Your task to perform on an android device: Look up the best rated pressure washer on Home Depot. Image 0: 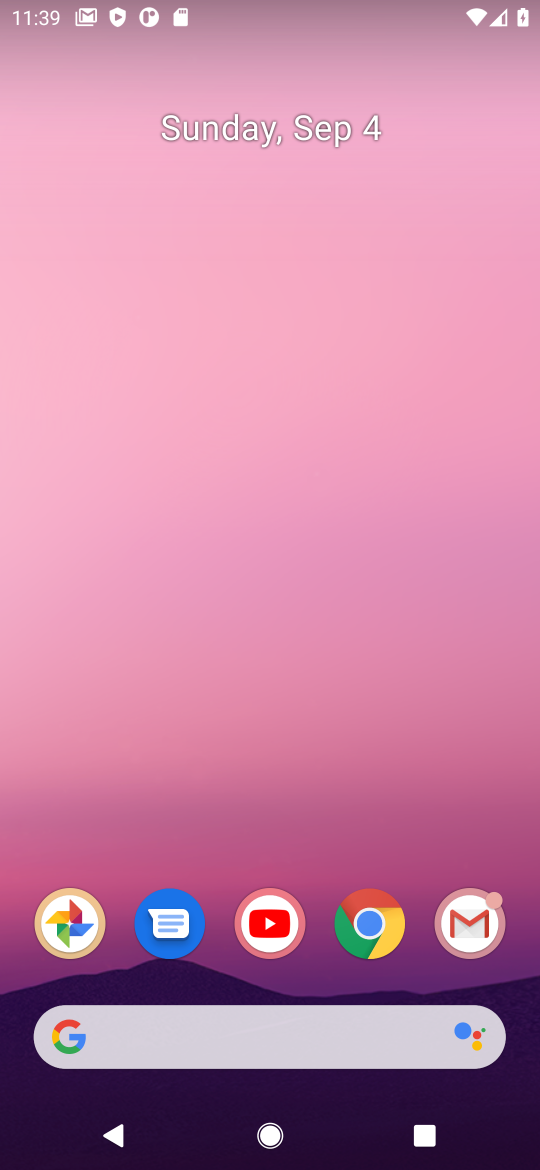
Step 0: click (362, 948)
Your task to perform on an android device: Look up the best rated pressure washer on Home Depot. Image 1: 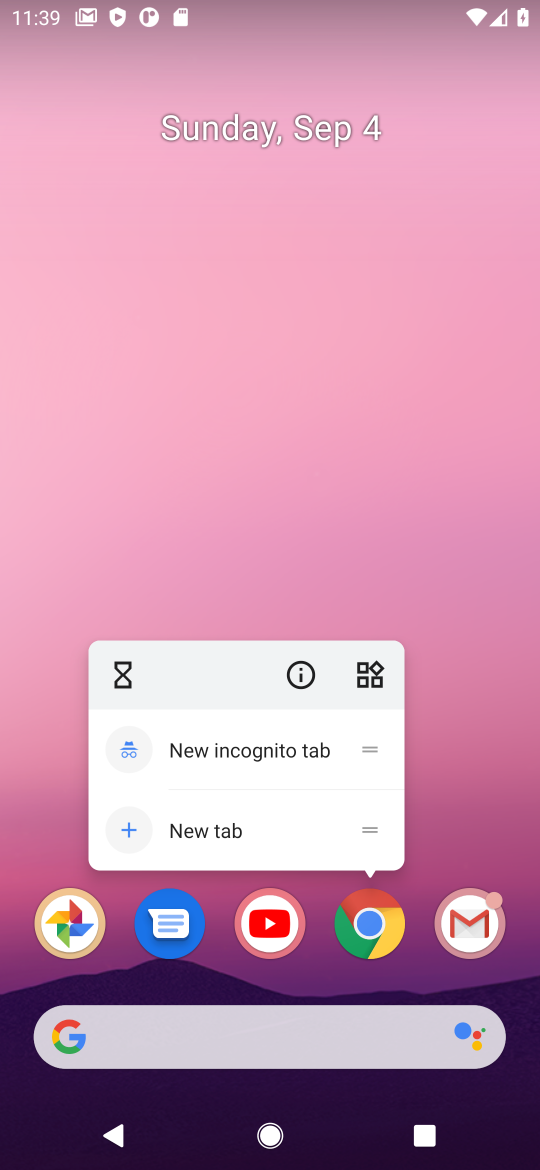
Step 1: click (369, 921)
Your task to perform on an android device: Look up the best rated pressure washer on Home Depot. Image 2: 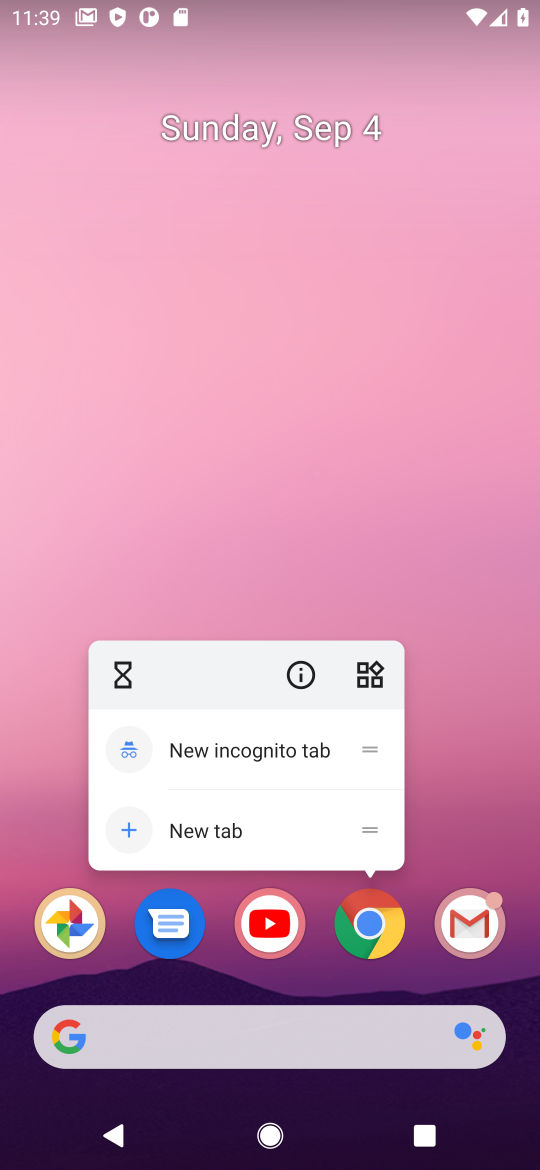
Step 2: click (369, 921)
Your task to perform on an android device: Look up the best rated pressure washer on Home Depot. Image 3: 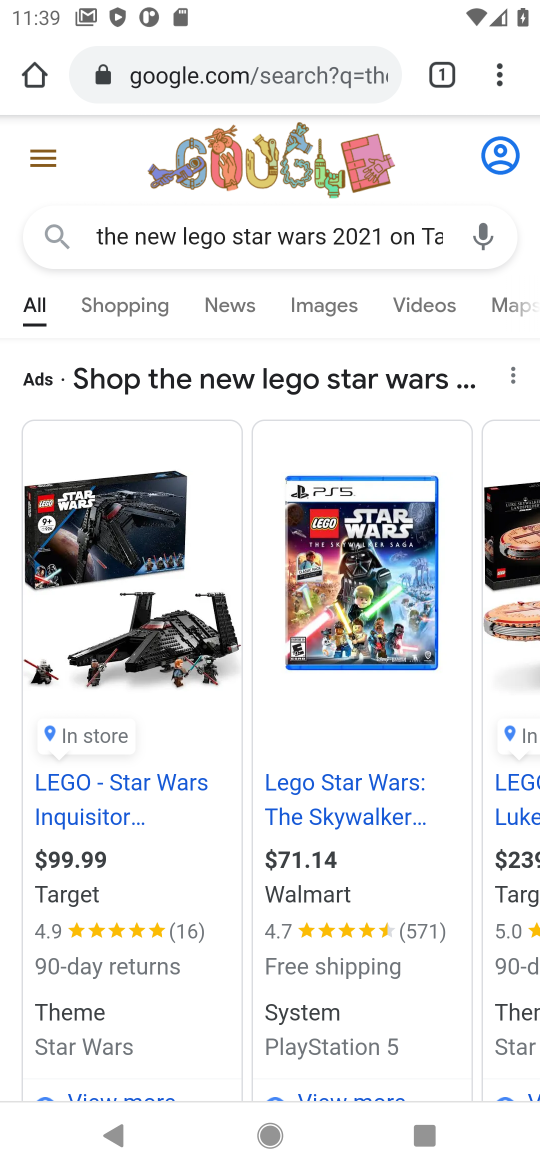
Step 3: click (321, 60)
Your task to perform on an android device: Look up the best rated pressure washer on Home Depot. Image 4: 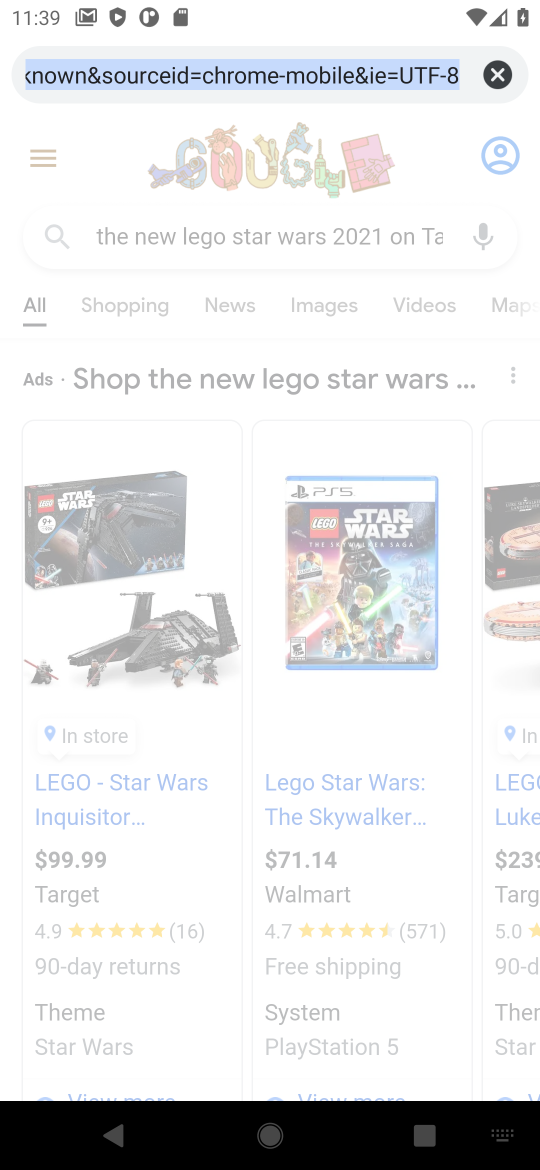
Step 4: click (489, 68)
Your task to perform on an android device: Look up the best rated pressure washer on Home Depot. Image 5: 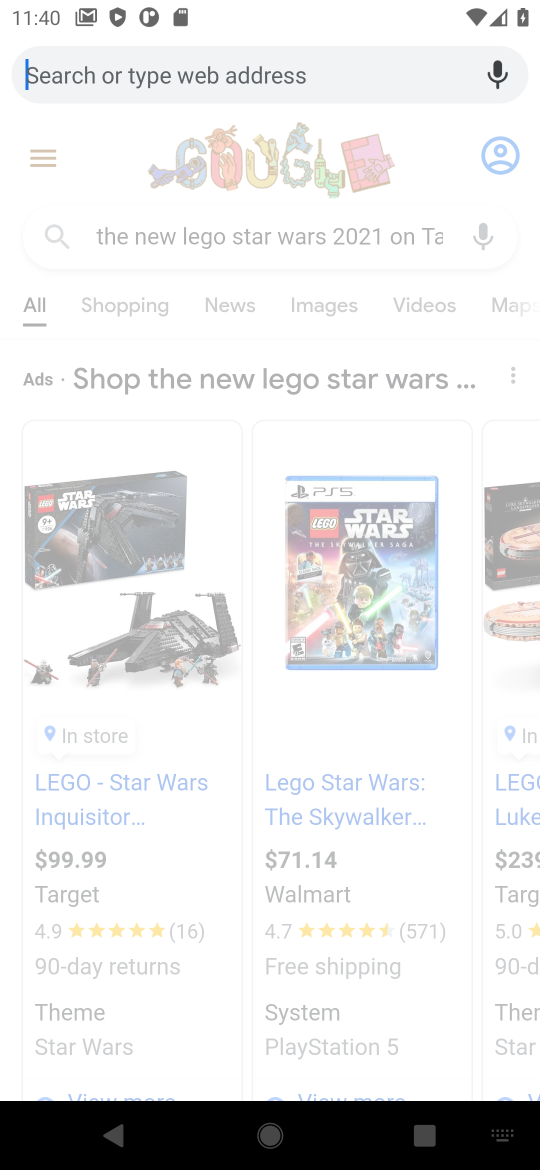
Step 5: type " the best rated pressure washer on Home Depot."
Your task to perform on an android device: Look up the best rated pressure washer on Home Depot. Image 6: 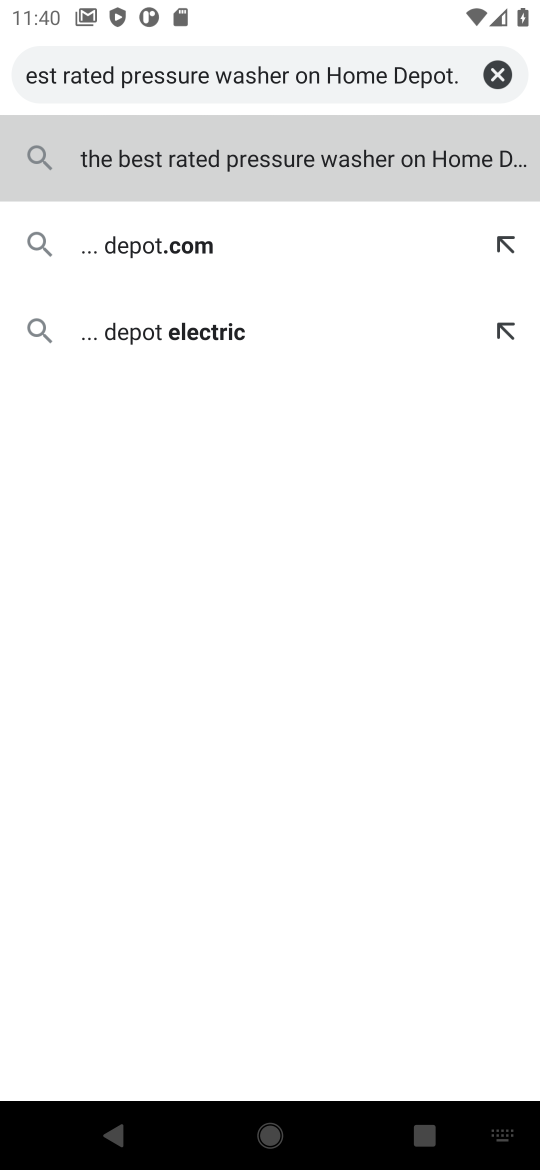
Step 6: click (315, 166)
Your task to perform on an android device: Look up the best rated pressure washer on Home Depot. Image 7: 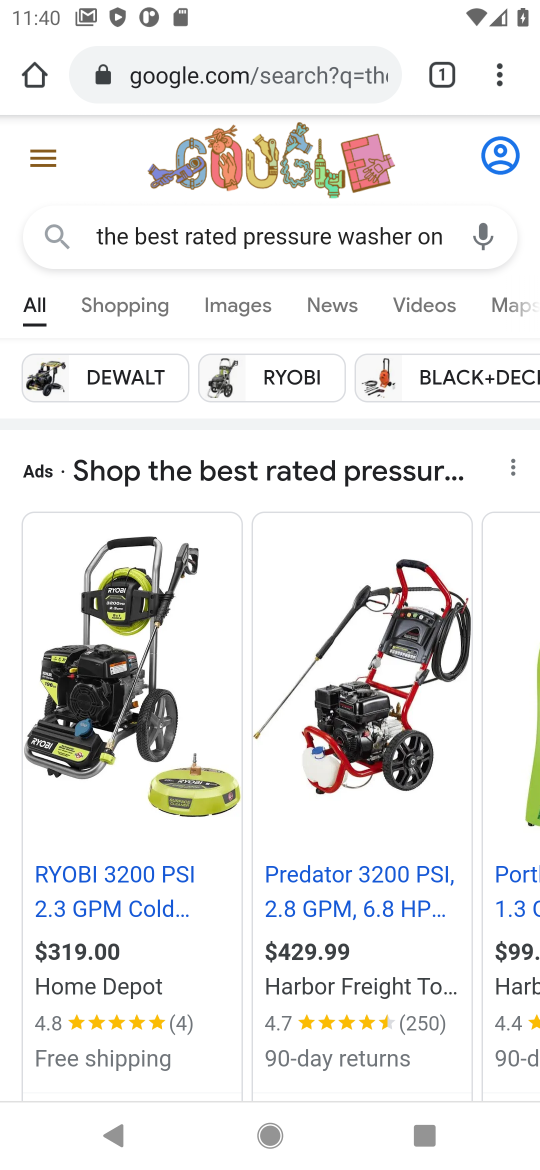
Step 7: click (365, 367)
Your task to perform on an android device: Look up the best rated pressure washer on Home Depot. Image 8: 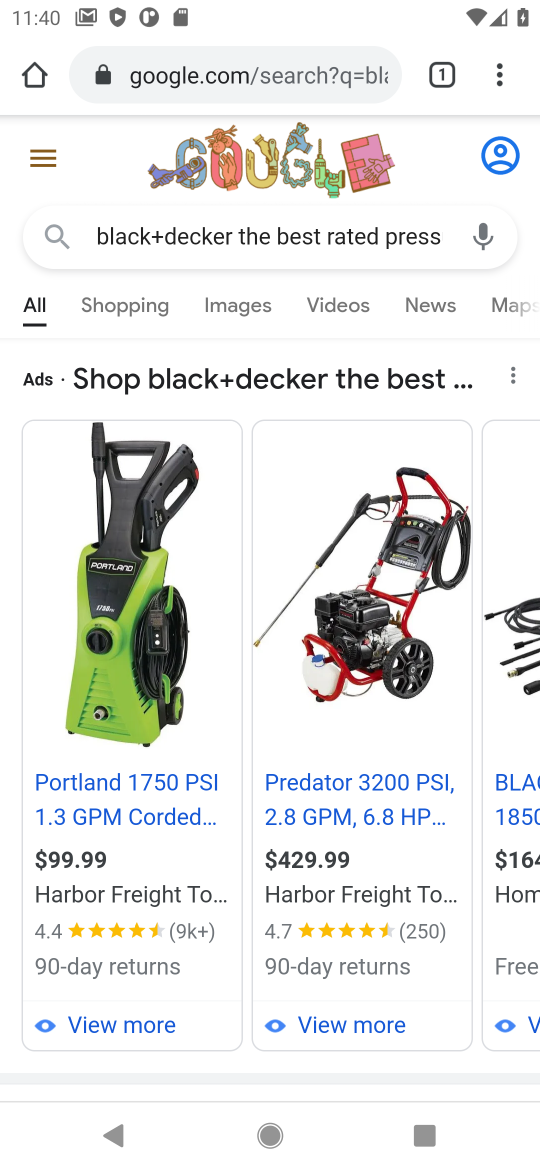
Step 8: task complete